Your task to perform on an android device: check battery use Image 0: 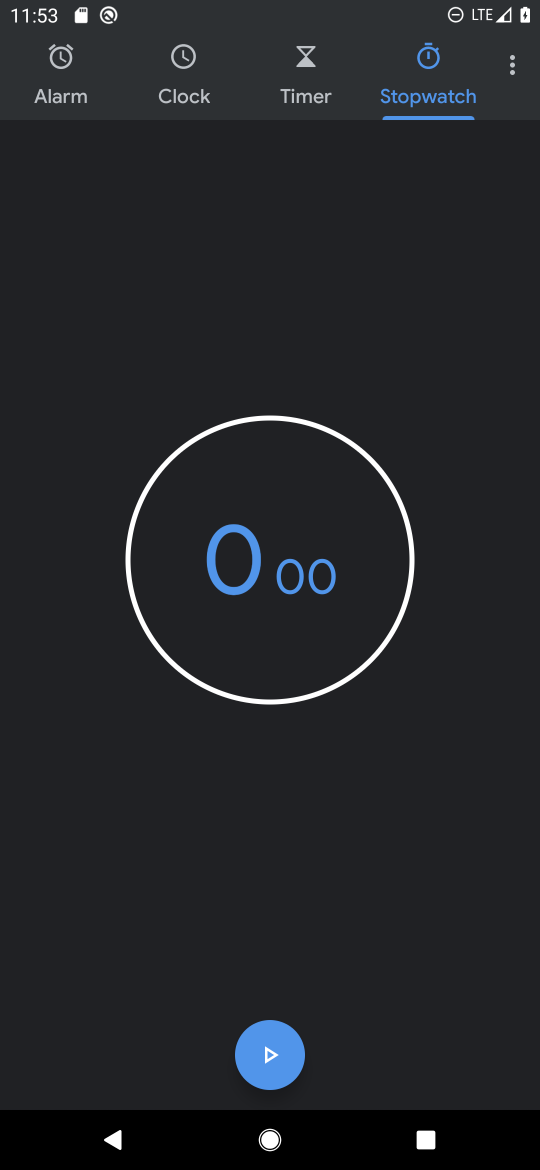
Step 0: press home button
Your task to perform on an android device: check battery use Image 1: 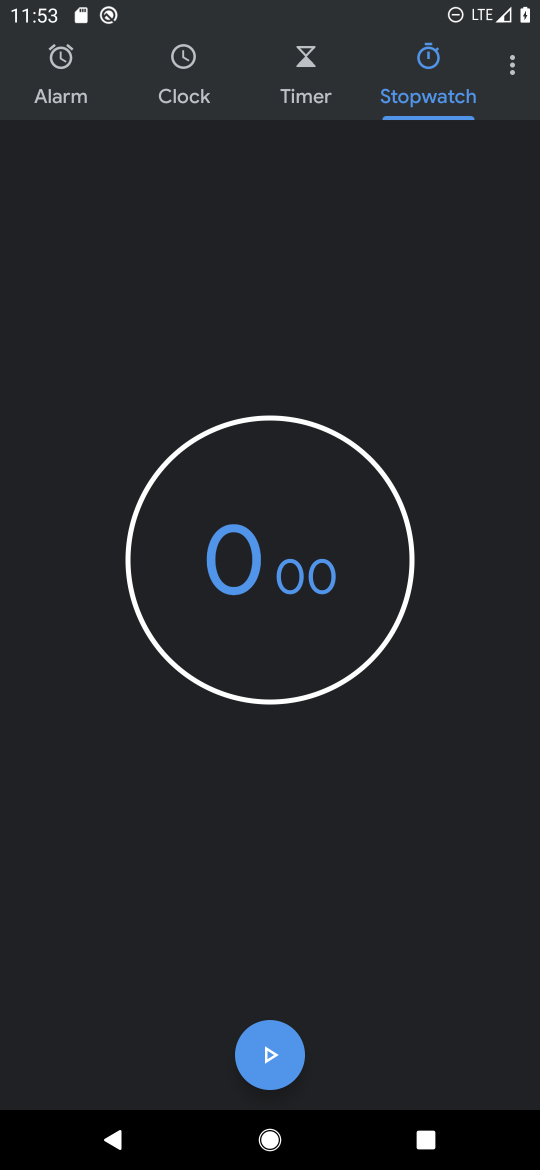
Step 1: press home button
Your task to perform on an android device: check battery use Image 2: 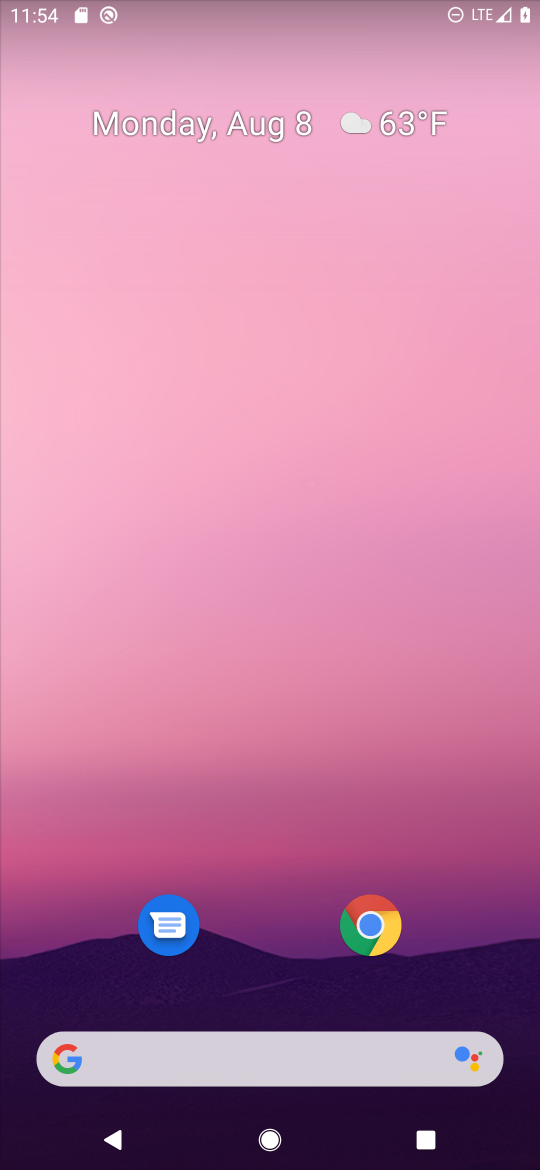
Step 2: drag from (273, 847) to (346, 111)
Your task to perform on an android device: check battery use Image 3: 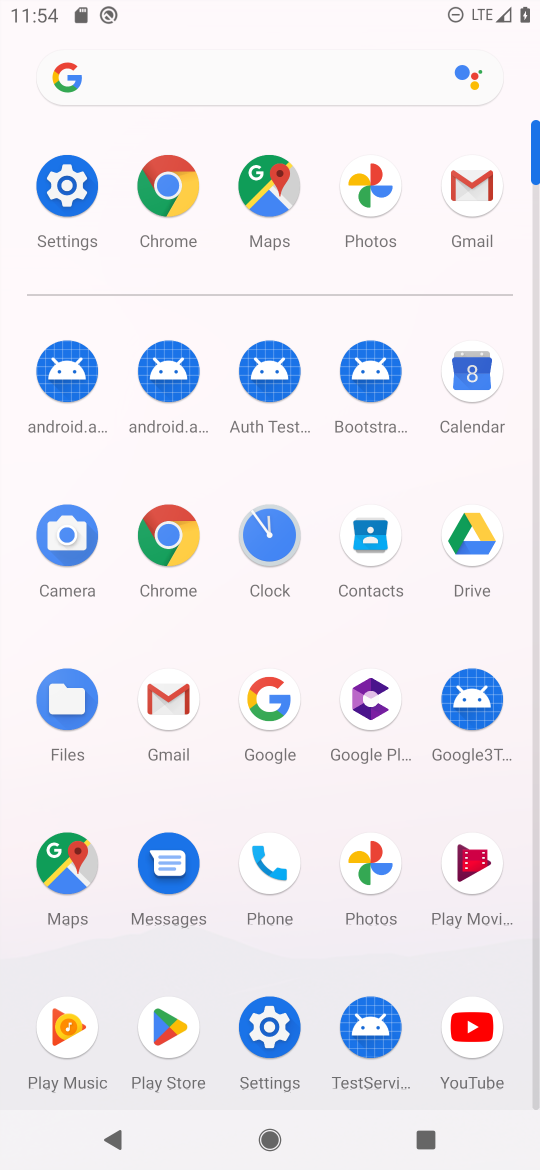
Step 3: click (277, 1033)
Your task to perform on an android device: check battery use Image 4: 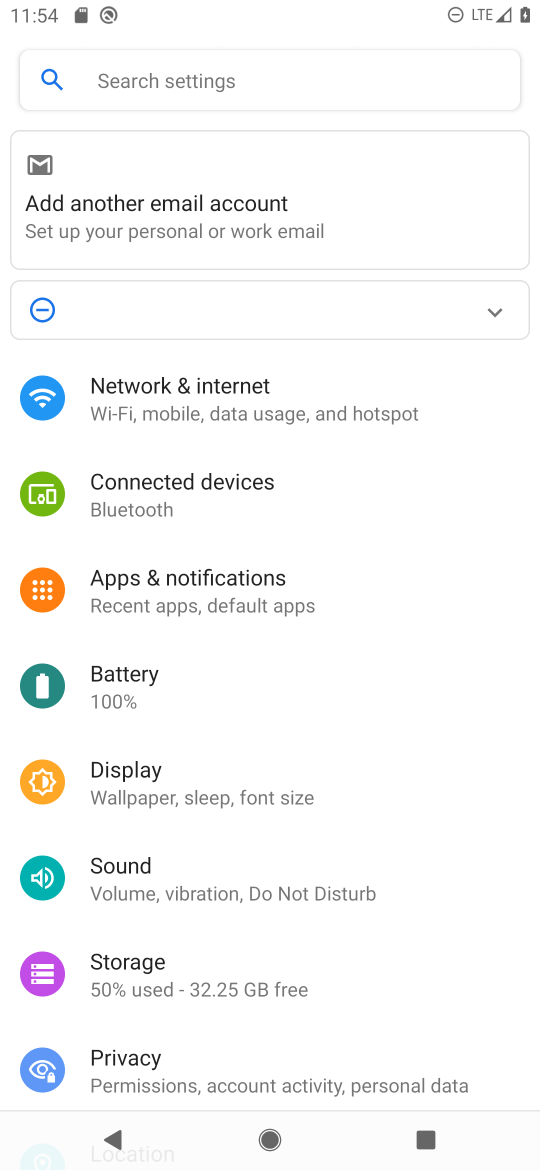
Step 4: click (132, 686)
Your task to perform on an android device: check battery use Image 5: 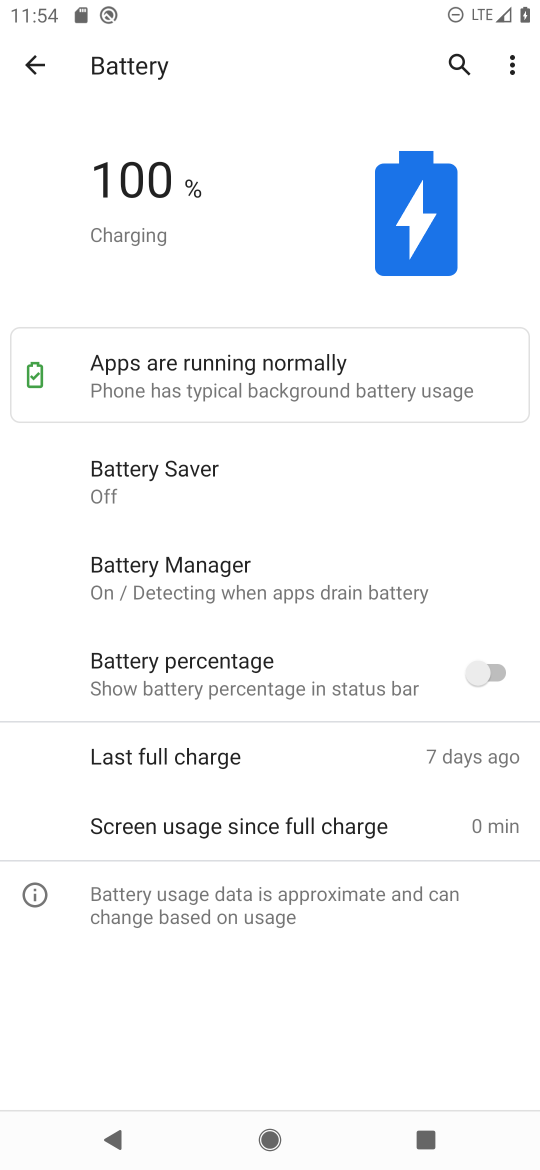
Step 5: click (523, 51)
Your task to perform on an android device: check battery use Image 6: 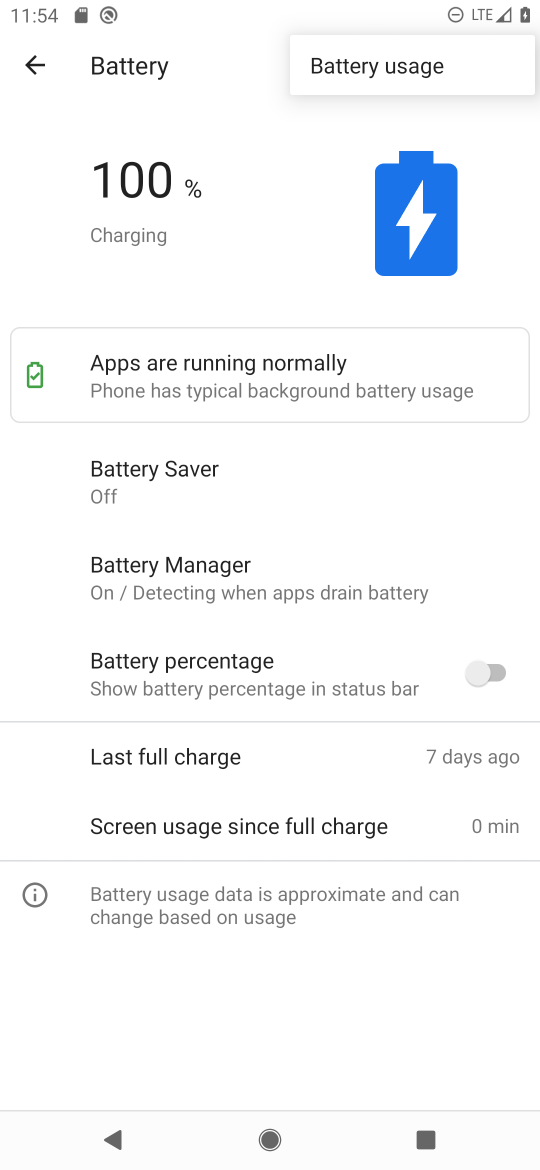
Step 6: click (419, 56)
Your task to perform on an android device: check battery use Image 7: 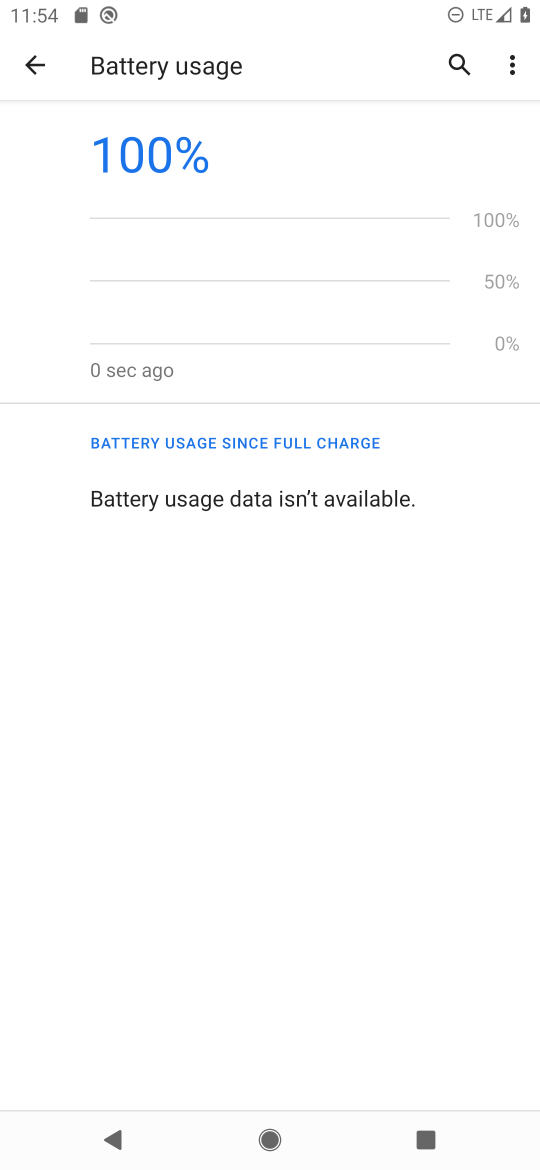
Step 7: task complete